Your task to perform on an android device: open a bookmark in the chrome app Image 0: 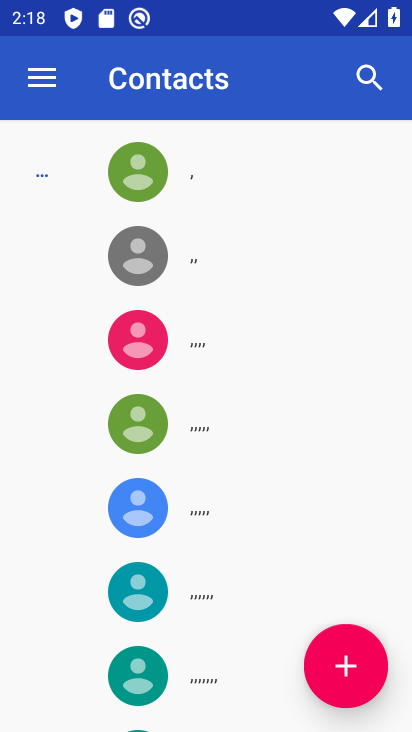
Step 0: press home button
Your task to perform on an android device: open a bookmark in the chrome app Image 1: 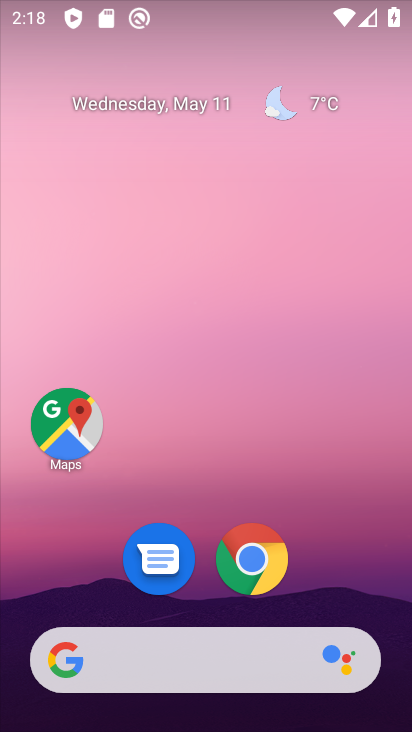
Step 1: click (253, 554)
Your task to perform on an android device: open a bookmark in the chrome app Image 2: 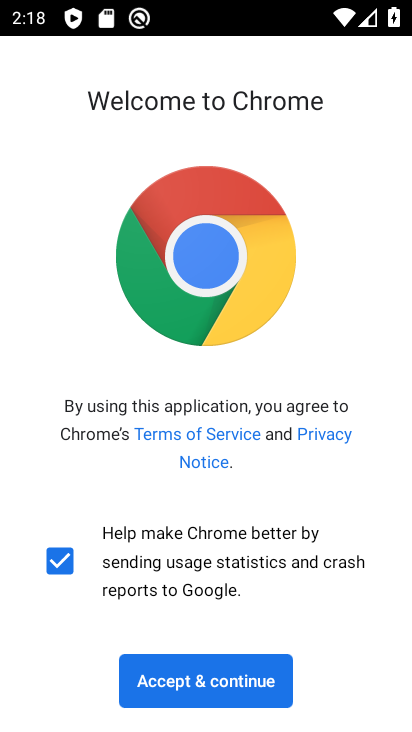
Step 2: click (232, 687)
Your task to perform on an android device: open a bookmark in the chrome app Image 3: 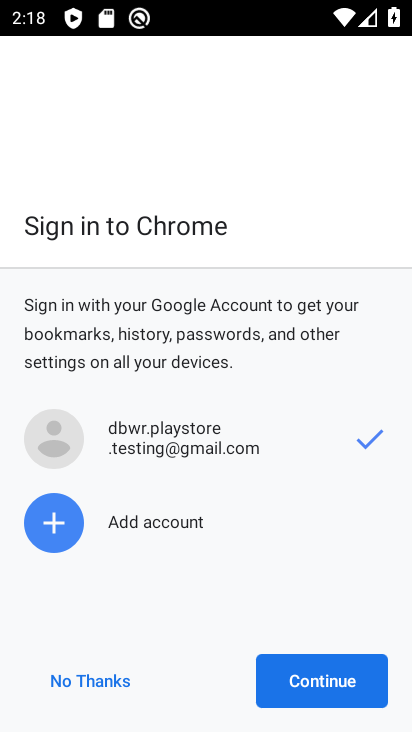
Step 3: click (339, 684)
Your task to perform on an android device: open a bookmark in the chrome app Image 4: 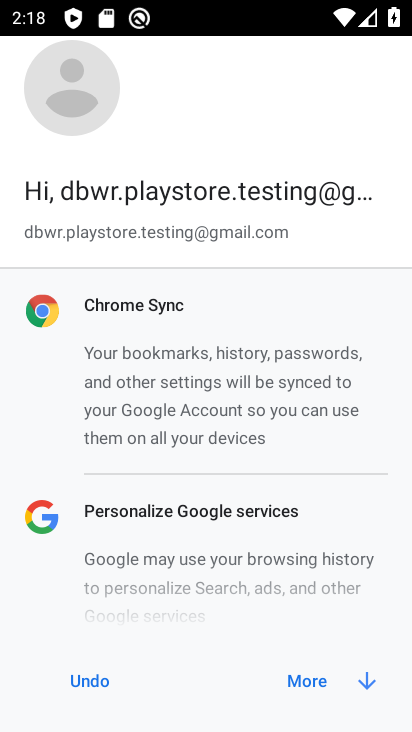
Step 4: click (328, 673)
Your task to perform on an android device: open a bookmark in the chrome app Image 5: 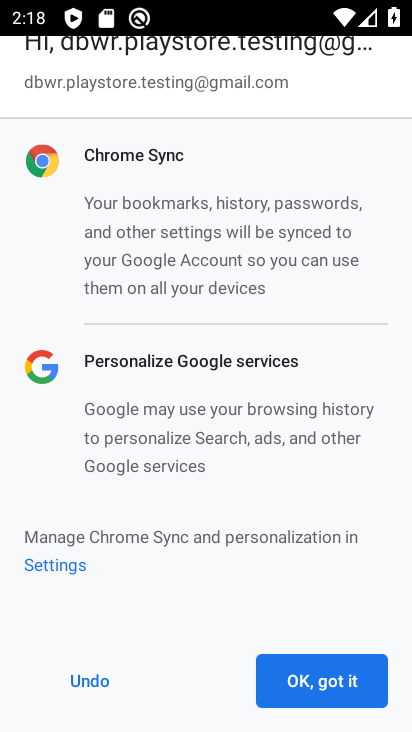
Step 5: click (327, 671)
Your task to perform on an android device: open a bookmark in the chrome app Image 6: 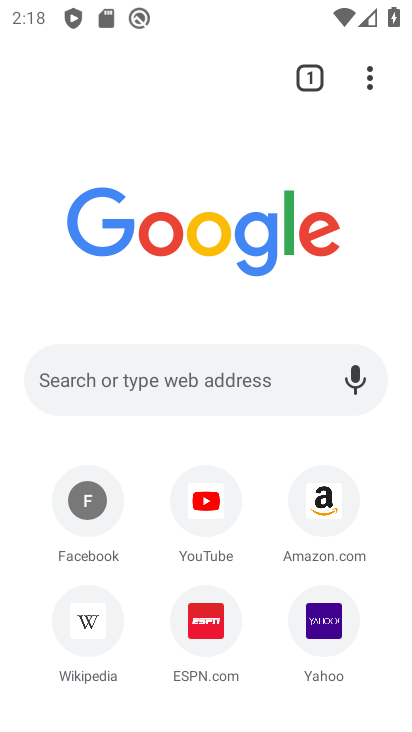
Step 6: click (364, 77)
Your task to perform on an android device: open a bookmark in the chrome app Image 7: 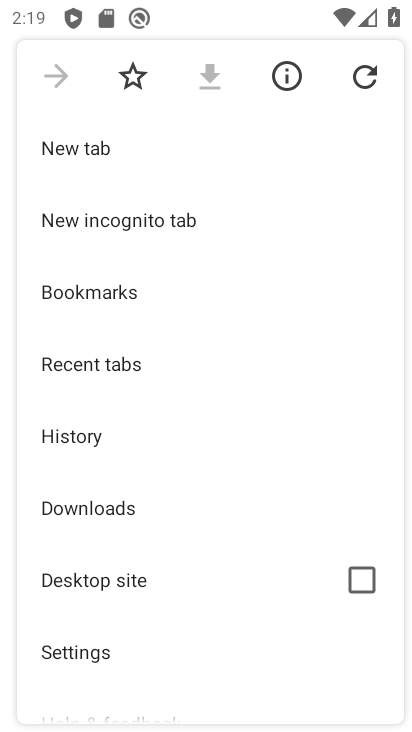
Step 7: click (124, 291)
Your task to perform on an android device: open a bookmark in the chrome app Image 8: 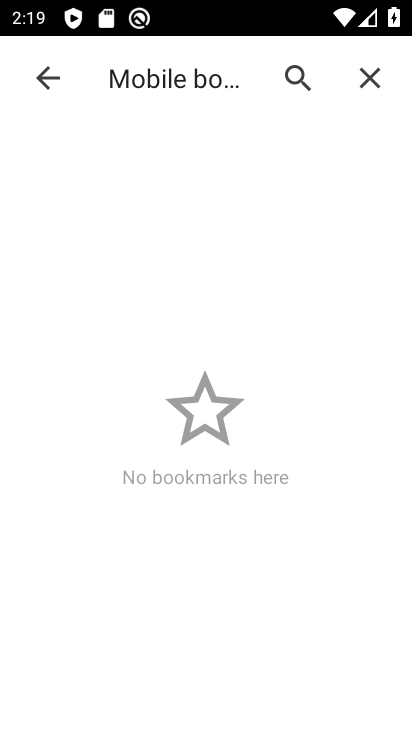
Step 8: task complete